Your task to perform on an android device: open a new tab in the chrome app Image 0: 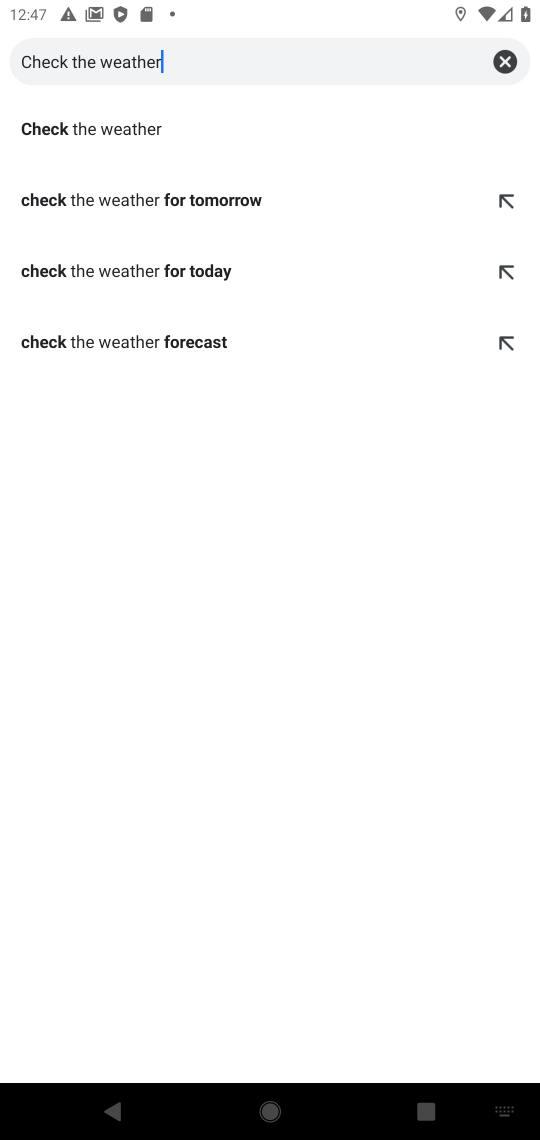
Step 0: press home button
Your task to perform on an android device: open a new tab in the chrome app Image 1: 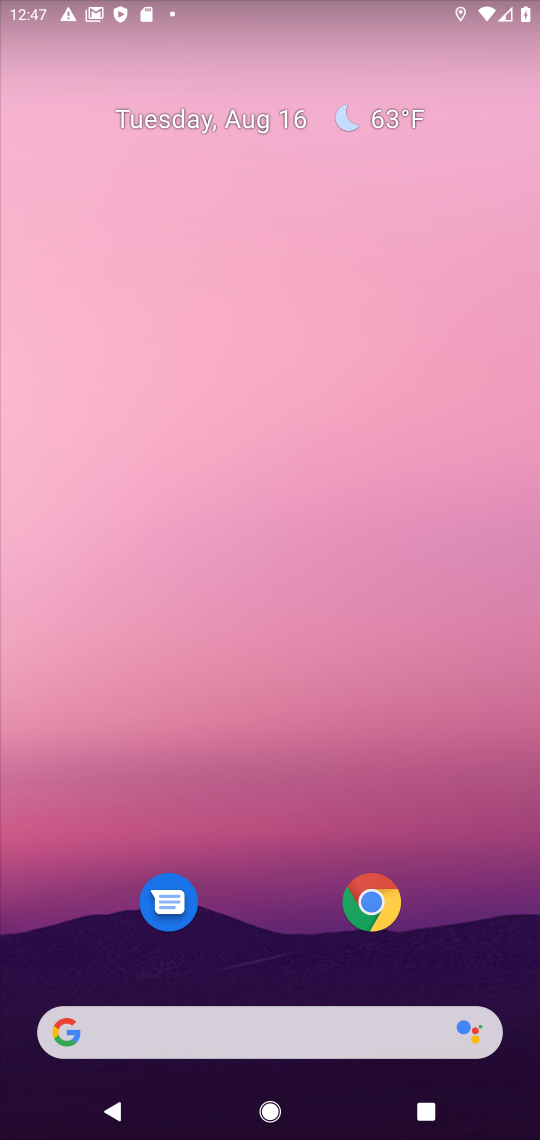
Step 1: click (366, 920)
Your task to perform on an android device: open a new tab in the chrome app Image 2: 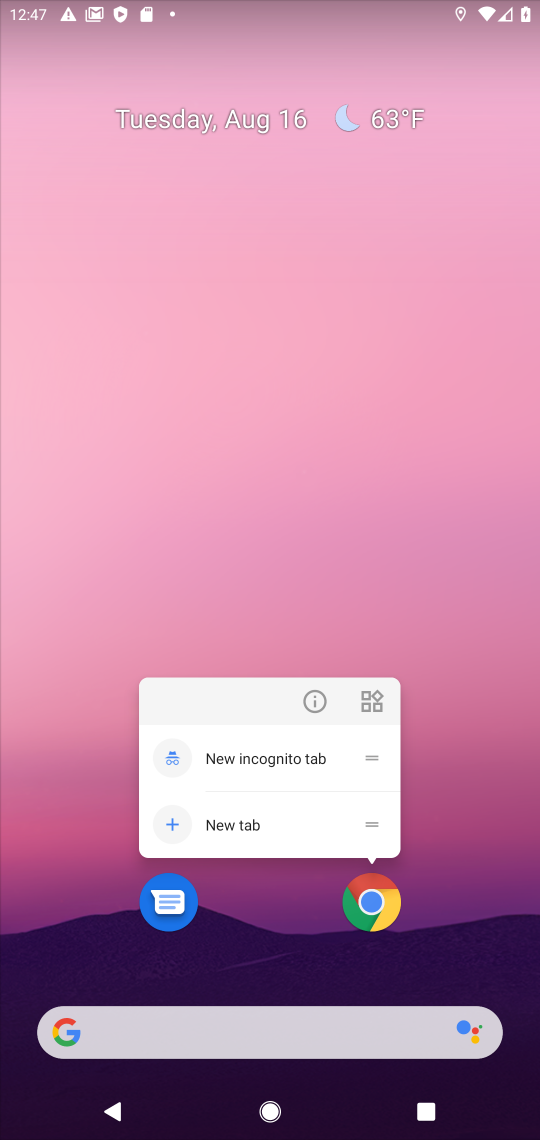
Step 2: task complete